Your task to perform on an android device: turn off airplane mode Image 0: 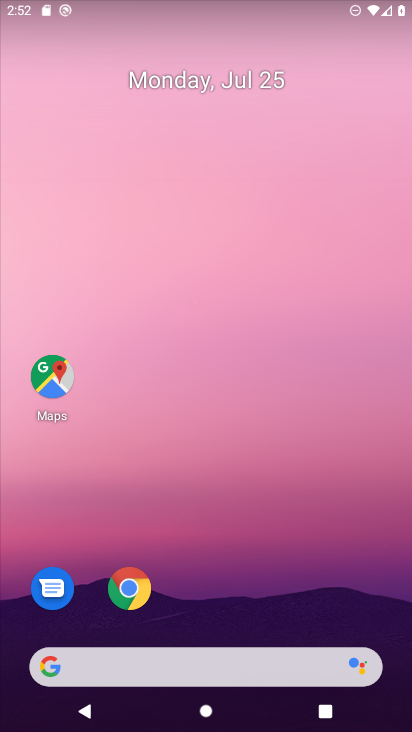
Step 0: drag from (281, 610) to (299, 192)
Your task to perform on an android device: turn off airplane mode Image 1: 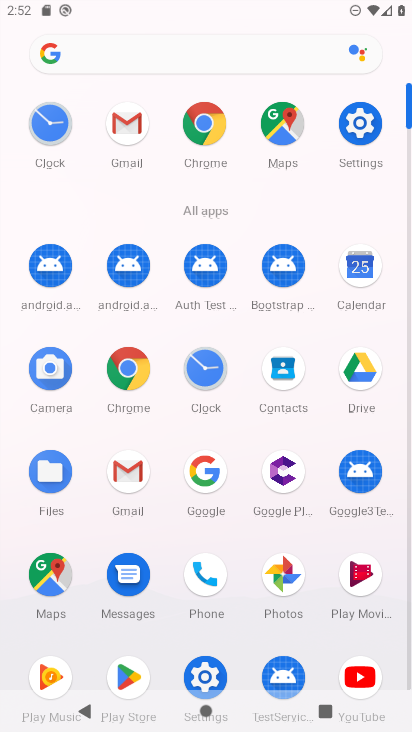
Step 1: click (362, 115)
Your task to perform on an android device: turn off airplane mode Image 2: 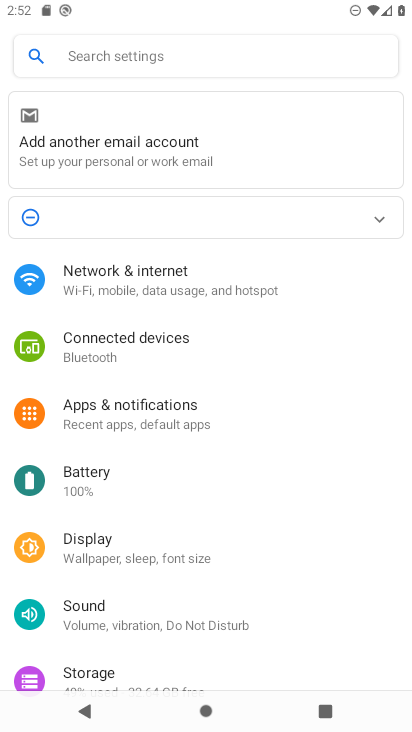
Step 2: click (141, 304)
Your task to perform on an android device: turn off airplane mode Image 3: 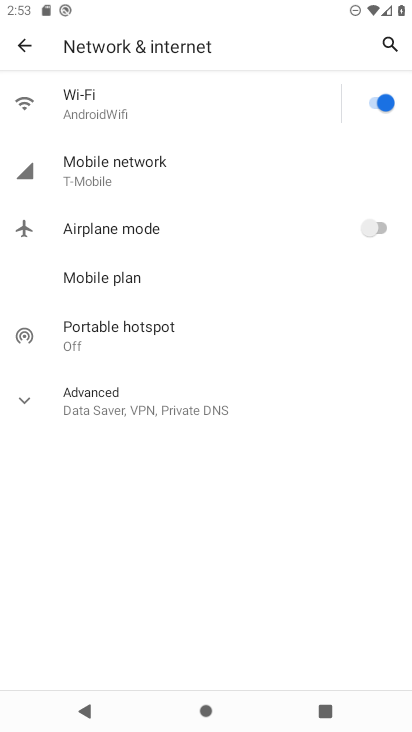
Step 3: task complete